Your task to perform on an android device: Open the Play Movies app and select the watchlist tab. Image 0: 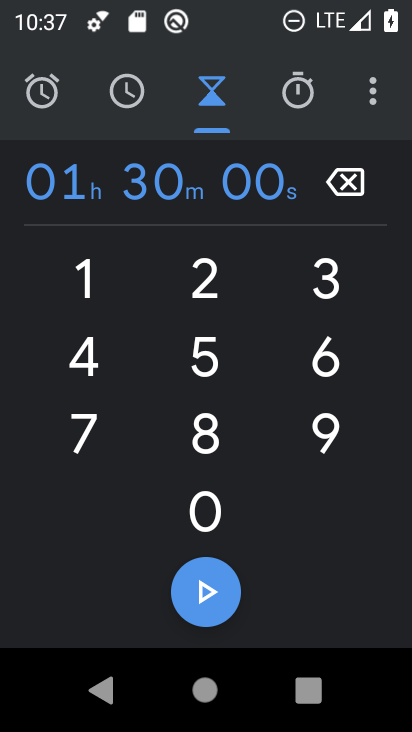
Step 0: press home button
Your task to perform on an android device: Open the Play Movies app and select the watchlist tab. Image 1: 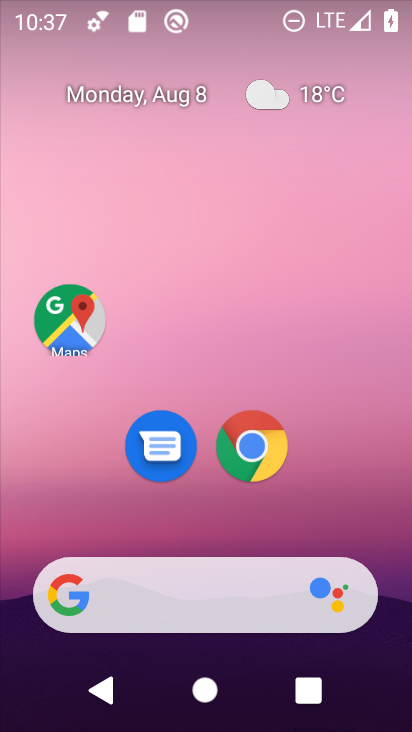
Step 1: drag from (400, 603) to (362, 101)
Your task to perform on an android device: Open the Play Movies app and select the watchlist tab. Image 2: 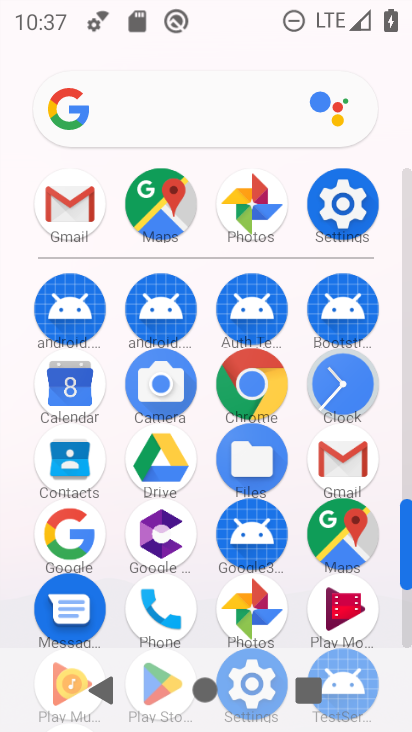
Step 2: click (346, 612)
Your task to perform on an android device: Open the Play Movies app and select the watchlist tab. Image 3: 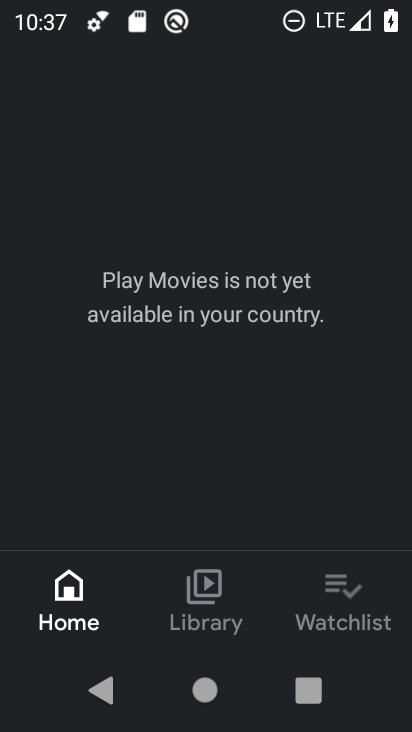
Step 3: click (347, 592)
Your task to perform on an android device: Open the Play Movies app and select the watchlist tab. Image 4: 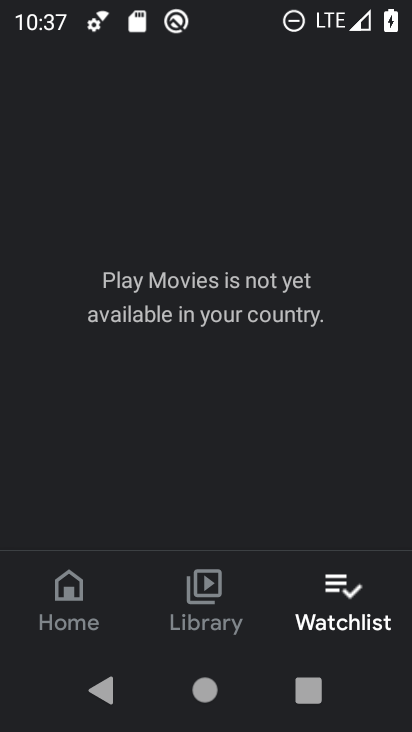
Step 4: task complete